Your task to perform on an android device: turn off smart reply in the gmail app Image 0: 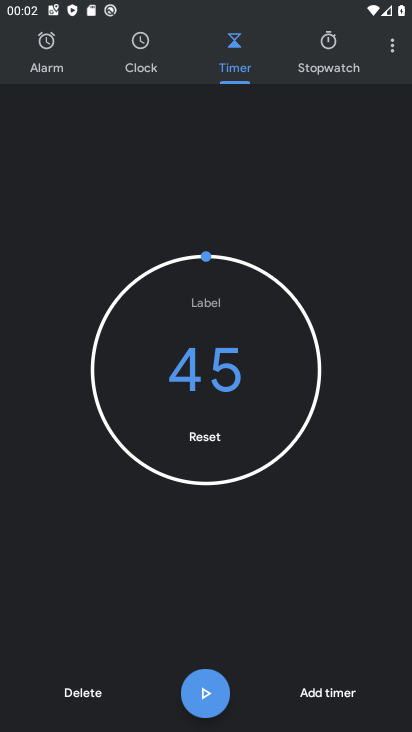
Step 0: press home button
Your task to perform on an android device: turn off smart reply in the gmail app Image 1: 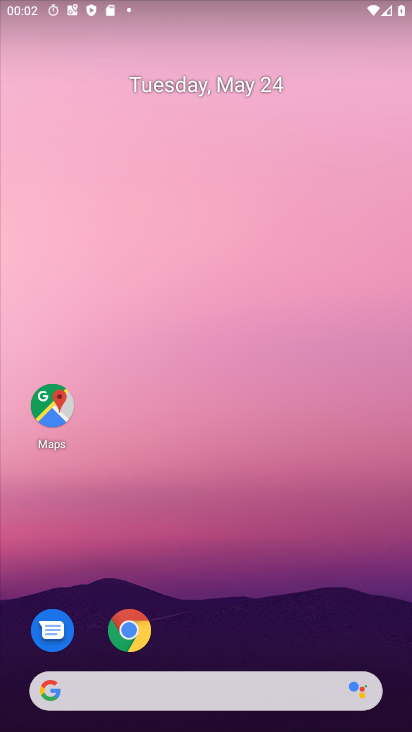
Step 1: drag from (270, 643) to (268, 84)
Your task to perform on an android device: turn off smart reply in the gmail app Image 2: 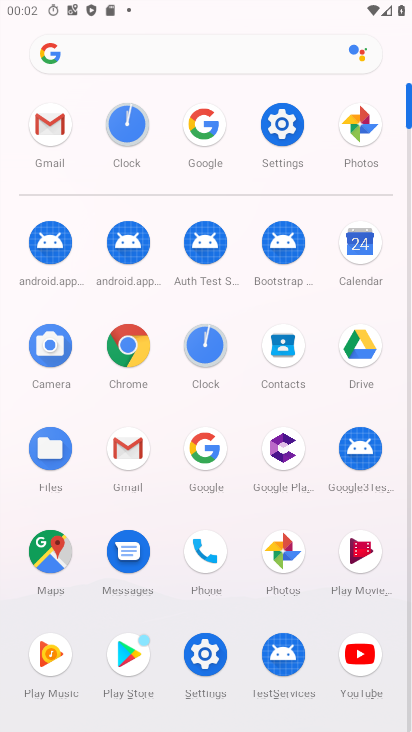
Step 2: click (55, 129)
Your task to perform on an android device: turn off smart reply in the gmail app Image 3: 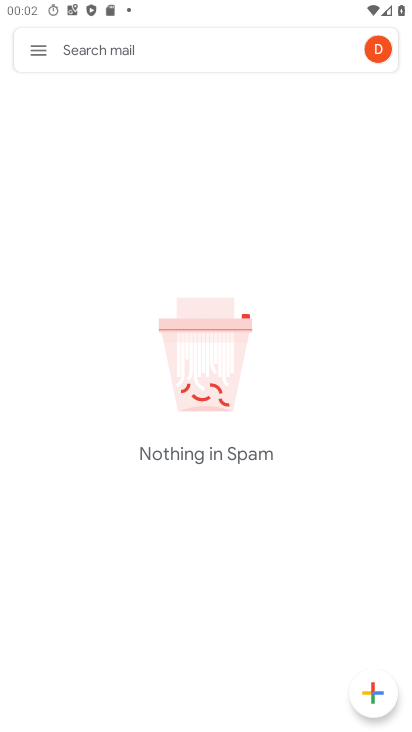
Step 3: click (37, 53)
Your task to perform on an android device: turn off smart reply in the gmail app Image 4: 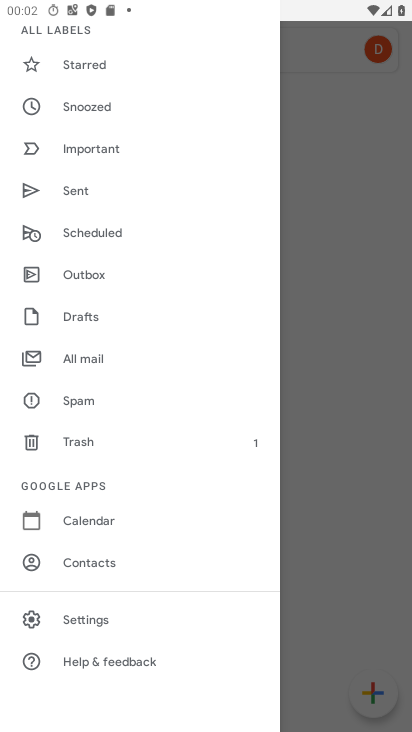
Step 4: click (89, 622)
Your task to perform on an android device: turn off smart reply in the gmail app Image 5: 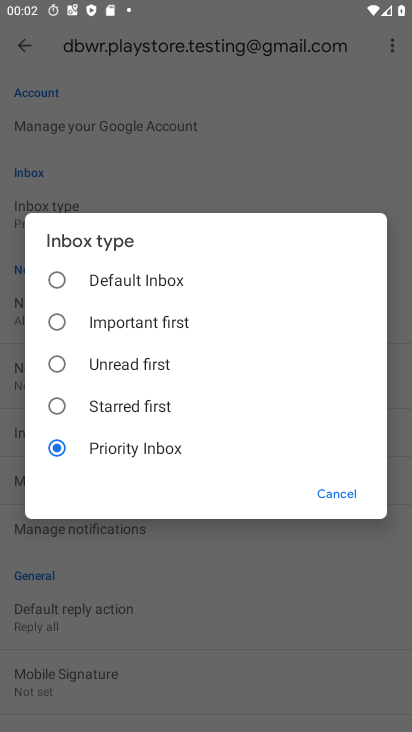
Step 5: click (339, 493)
Your task to perform on an android device: turn off smart reply in the gmail app Image 6: 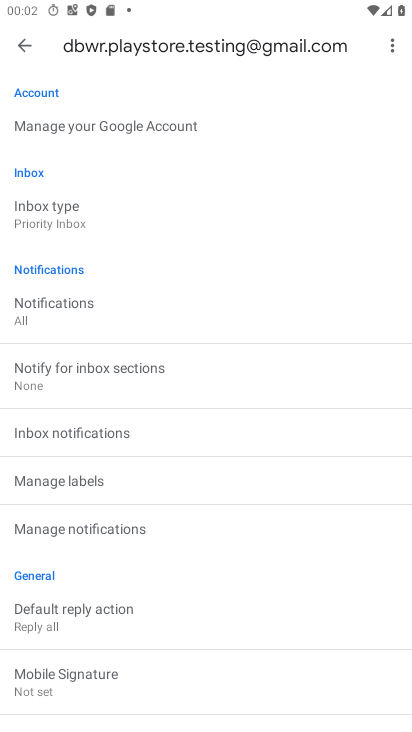
Step 6: drag from (138, 542) to (133, 128)
Your task to perform on an android device: turn off smart reply in the gmail app Image 7: 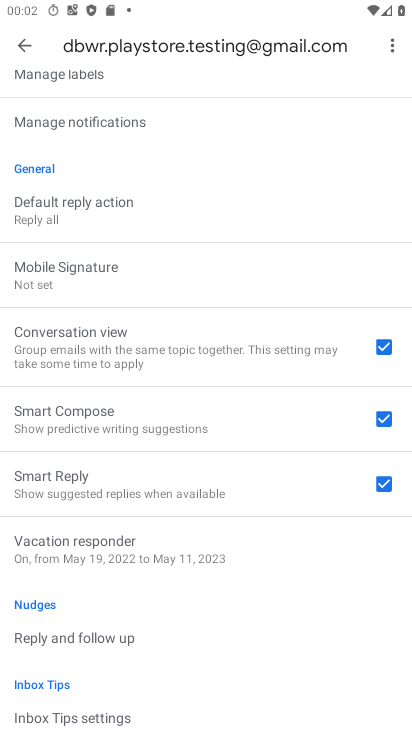
Step 7: click (378, 482)
Your task to perform on an android device: turn off smart reply in the gmail app Image 8: 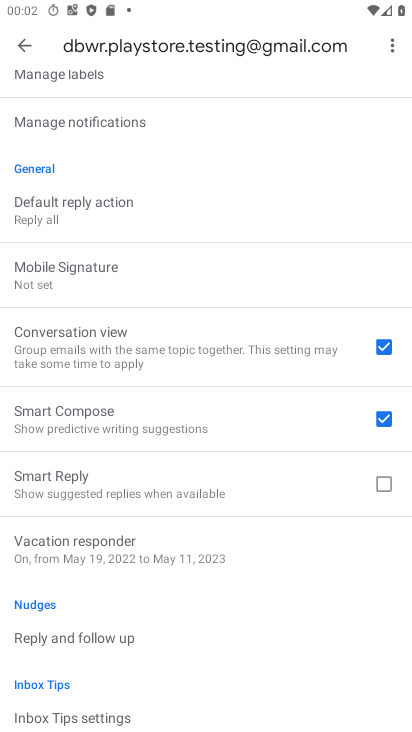
Step 8: task complete